Your task to perform on an android device: Check the weather Image 0: 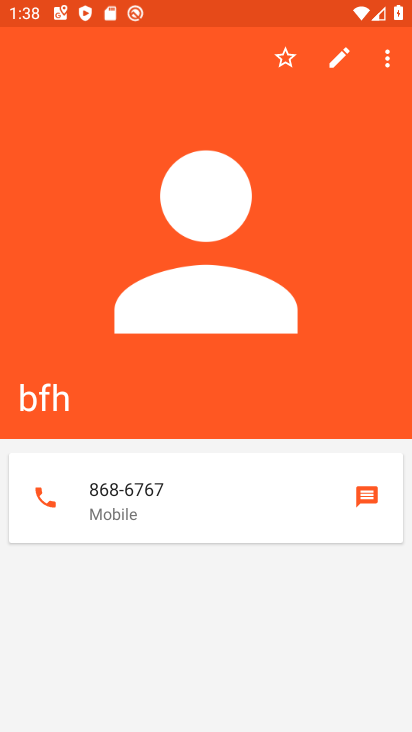
Step 0: drag from (212, 574) to (257, 200)
Your task to perform on an android device: Check the weather Image 1: 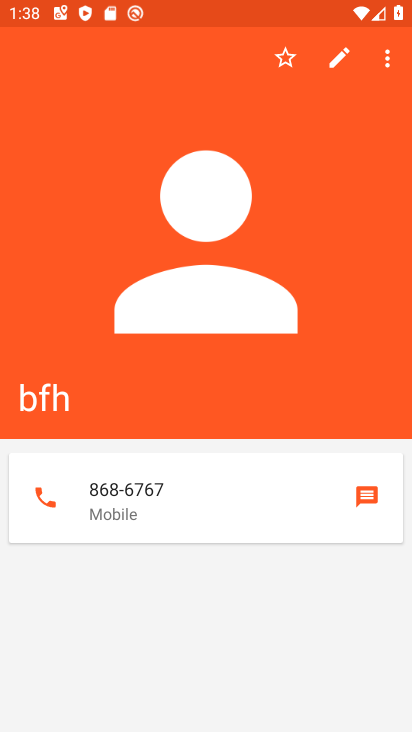
Step 1: press home button
Your task to perform on an android device: Check the weather Image 2: 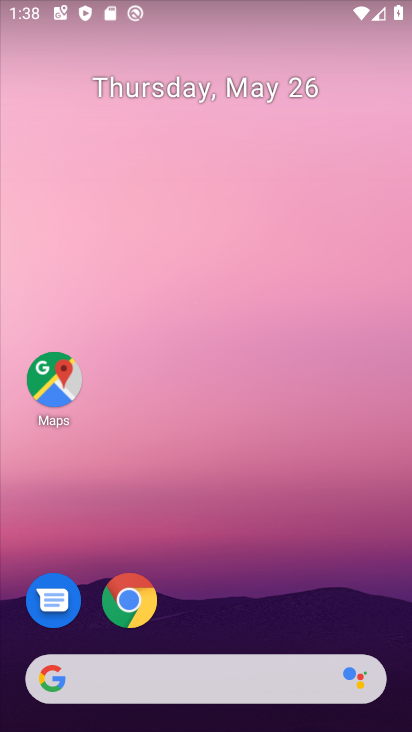
Step 2: click (97, 672)
Your task to perform on an android device: Check the weather Image 3: 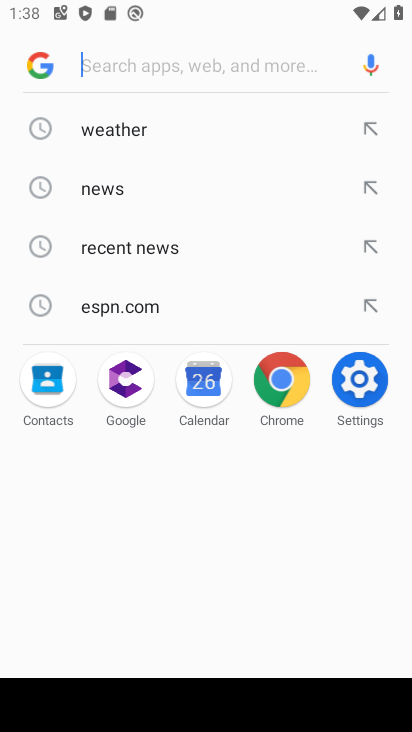
Step 3: click (132, 121)
Your task to perform on an android device: Check the weather Image 4: 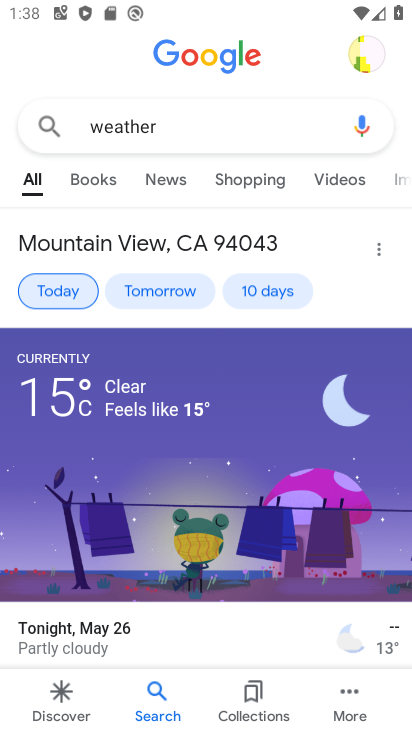
Step 4: task complete